Your task to perform on an android device: Do I have any events tomorrow? Image 0: 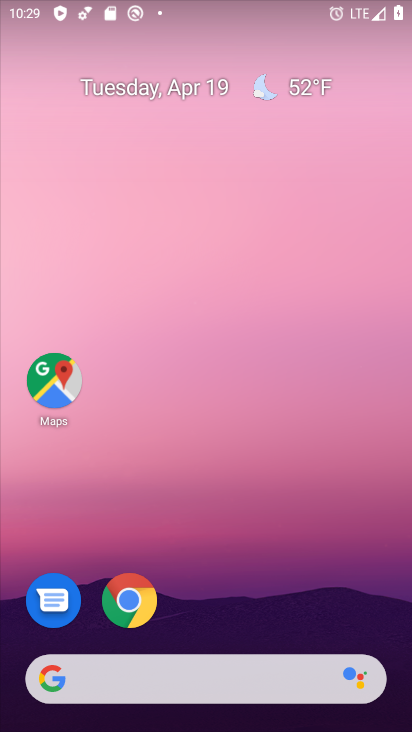
Step 0: drag from (296, 565) to (188, 214)
Your task to perform on an android device: Do I have any events tomorrow? Image 1: 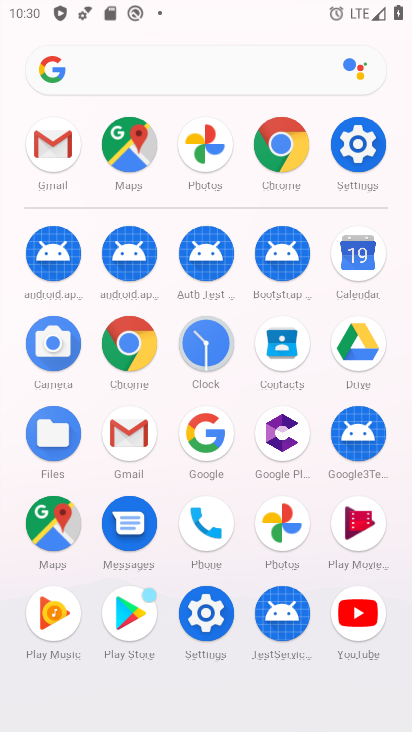
Step 1: click (359, 279)
Your task to perform on an android device: Do I have any events tomorrow? Image 2: 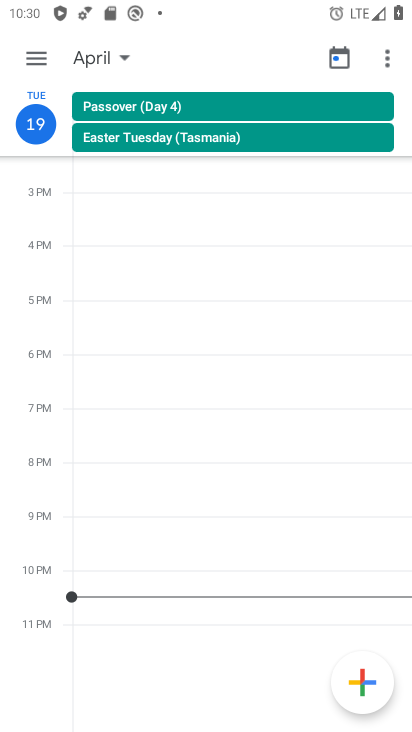
Step 2: click (88, 62)
Your task to perform on an android device: Do I have any events tomorrow? Image 3: 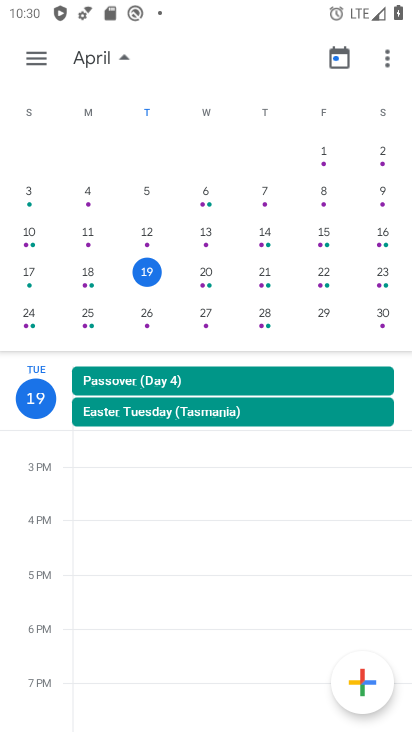
Step 3: click (265, 280)
Your task to perform on an android device: Do I have any events tomorrow? Image 4: 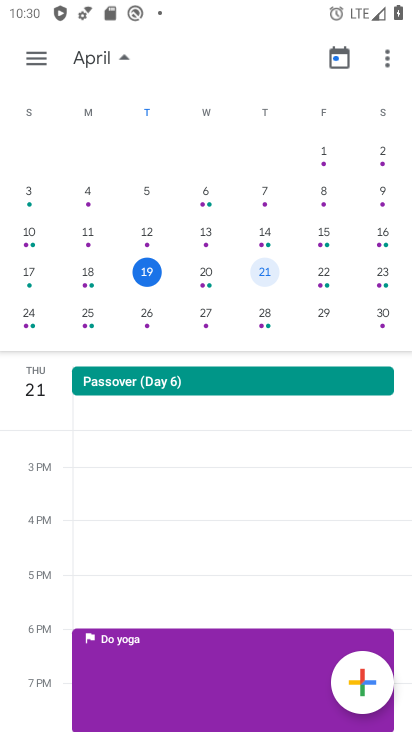
Step 4: click (197, 374)
Your task to perform on an android device: Do I have any events tomorrow? Image 5: 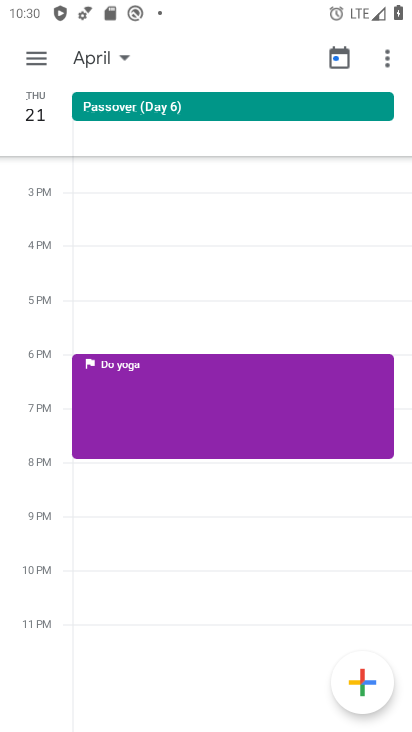
Step 5: task complete